Your task to perform on an android device: Go to sound settings Image 0: 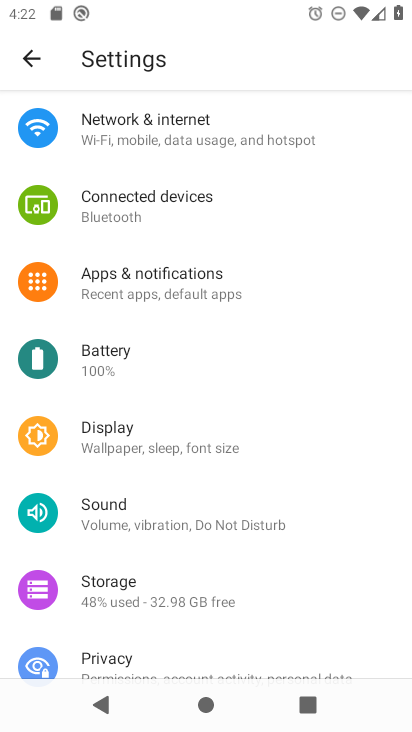
Step 0: click (150, 510)
Your task to perform on an android device: Go to sound settings Image 1: 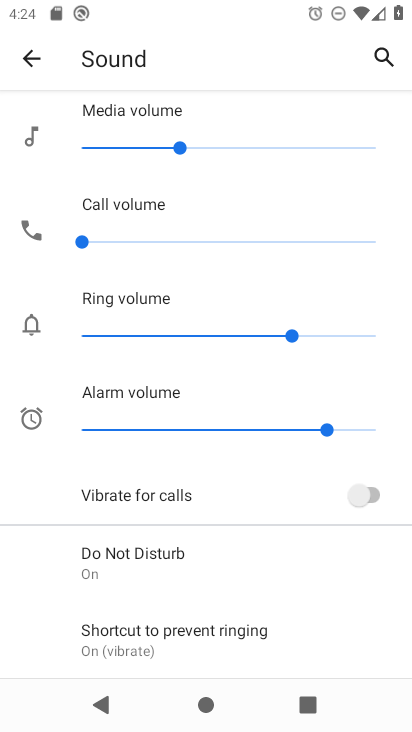
Step 1: task complete